Your task to perform on an android device: Open the web browser Image 0: 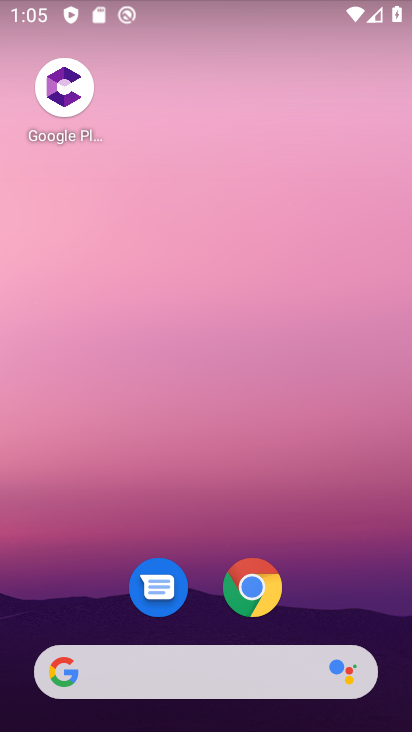
Step 0: drag from (304, 612) to (313, 264)
Your task to perform on an android device: Open the web browser Image 1: 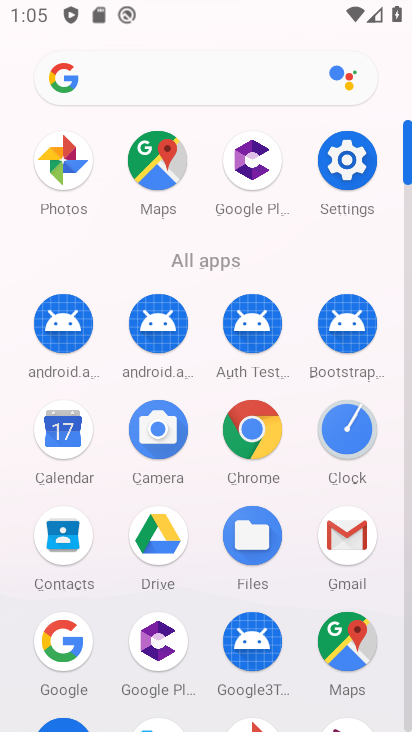
Step 1: click (274, 432)
Your task to perform on an android device: Open the web browser Image 2: 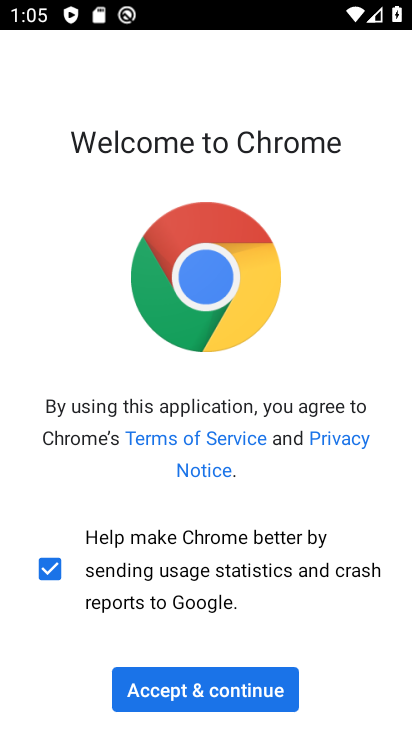
Step 2: click (257, 697)
Your task to perform on an android device: Open the web browser Image 3: 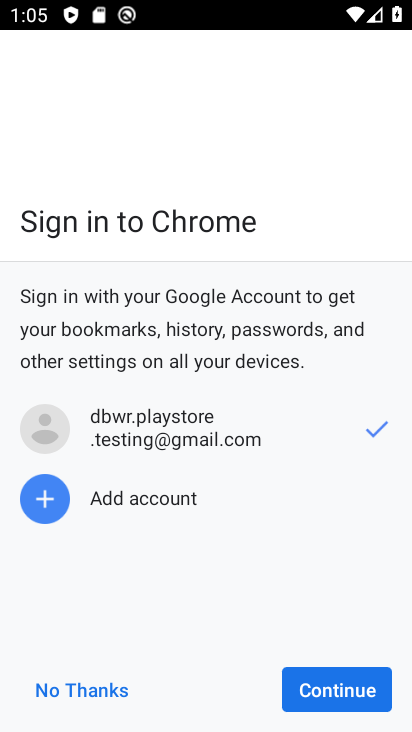
Step 3: click (372, 700)
Your task to perform on an android device: Open the web browser Image 4: 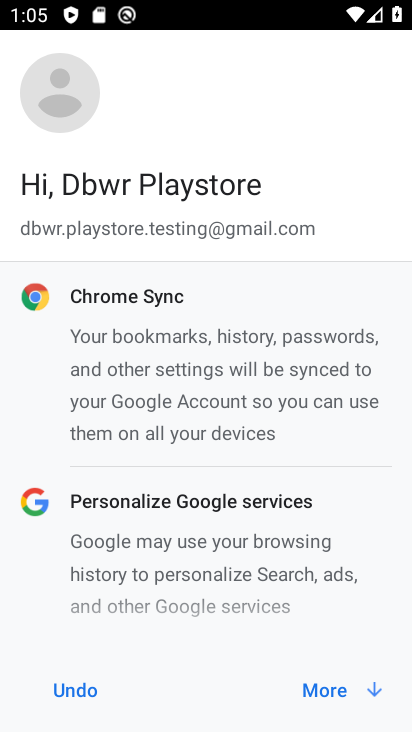
Step 4: click (374, 698)
Your task to perform on an android device: Open the web browser Image 5: 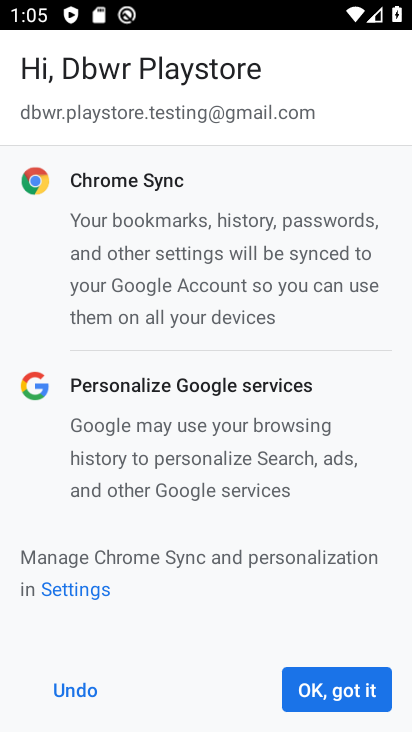
Step 5: click (374, 698)
Your task to perform on an android device: Open the web browser Image 6: 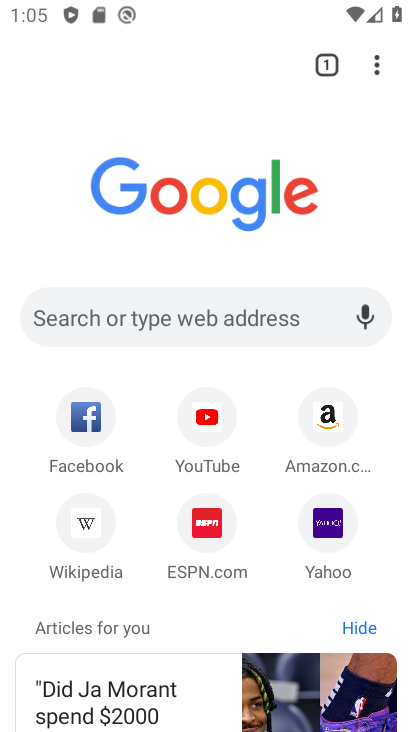
Step 6: task complete